Your task to perform on an android device: Play the last video I watched on Youtube Image 0: 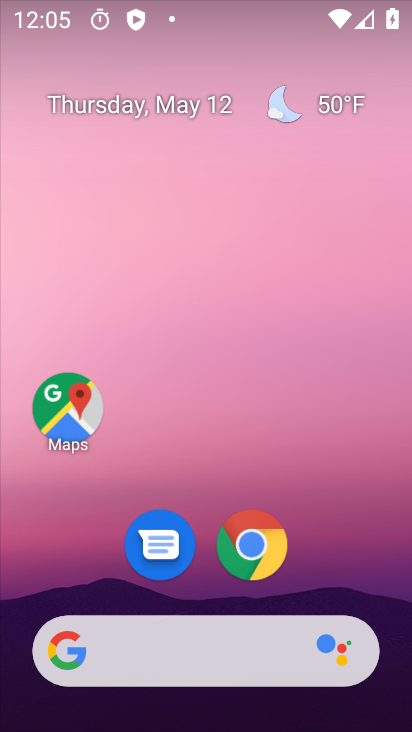
Step 0: drag from (224, 647) to (241, 132)
Your task to perform on an android device: Play the last video I watched on Youtube Image 1: 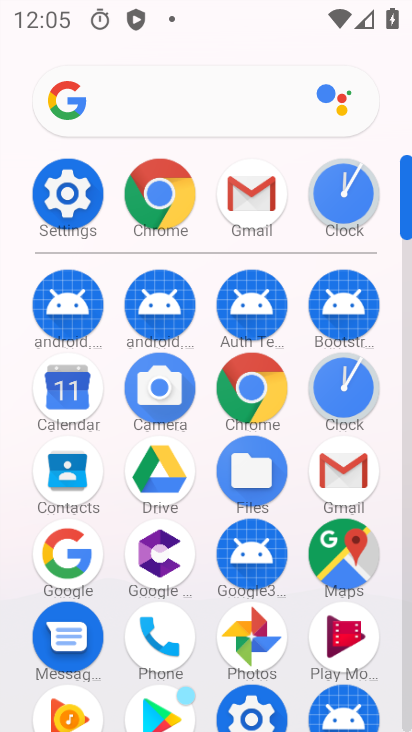
Step 1: drag from (221, 630) to (237, 139)
Your task to perform on an android device: Play the last video I watched on Youtube Image 2: 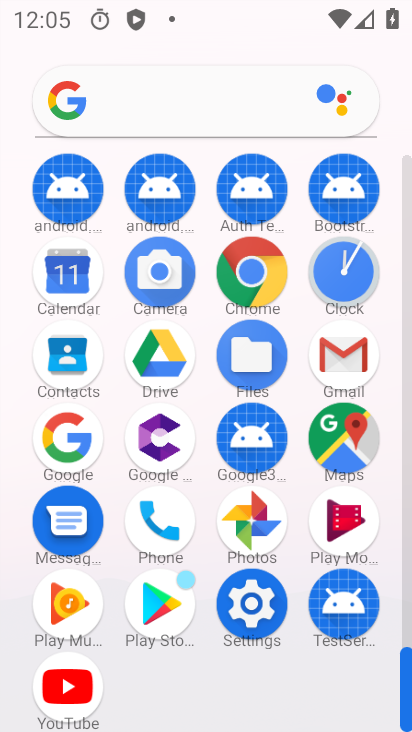
Step 2: click (75, 684)
Your task to perform on an android device: Play the last video I watched on Youtube Image 3: 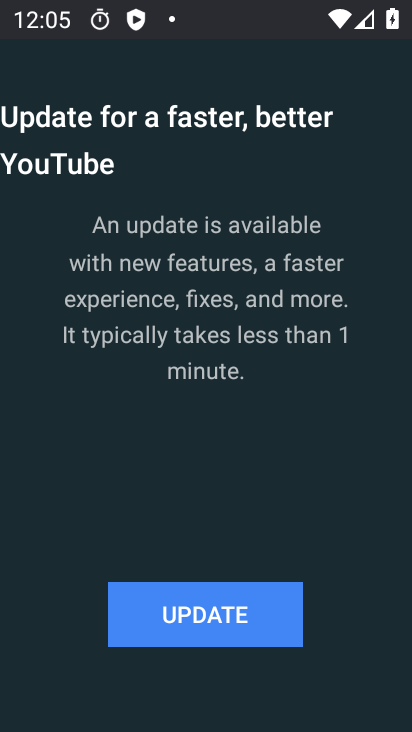
Step 3: click (91, 624)
Your task to perform on an android device: Play the last video I watched on Youtube Image 4: 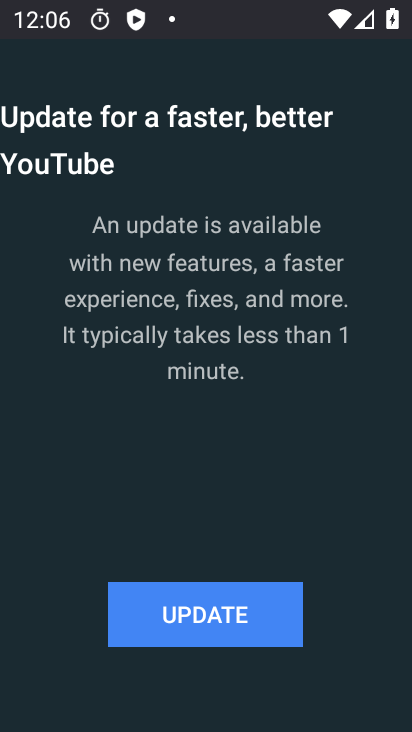
Step 4: click (189, 627)
Your task to perform on an android device: Play the last video I watched on Youtube Image 5: 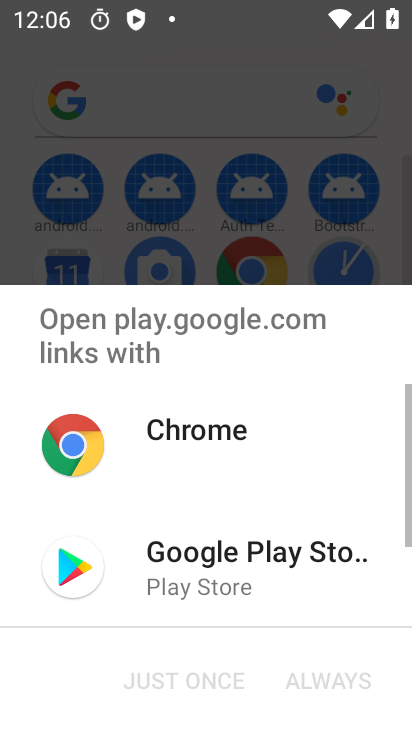
Step 5: click (203, 570)
Your task to perform on an android device: Play the last video I watched on Youtube Image 6: 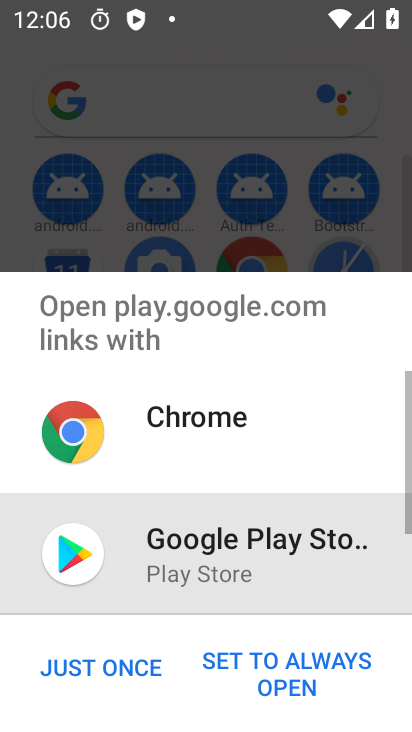
Step 6: click (102, 673)
Your task to perform on an android device: Play the last video I watched on Youtube Image 7: 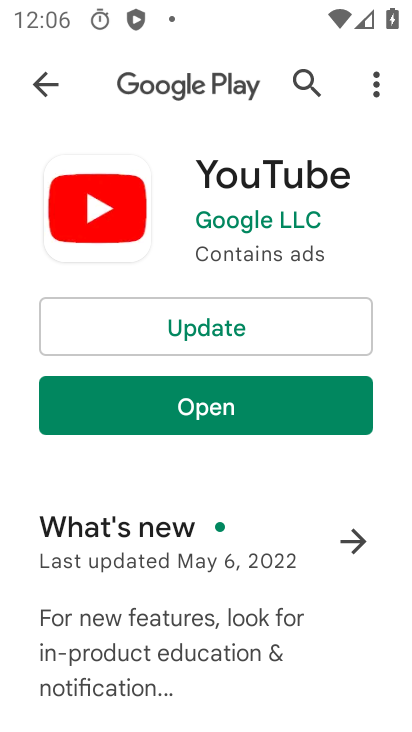
Step 7: click (185, 337)
Your task to perform on an android device: Play the last video I watched on Youtube Image 8: 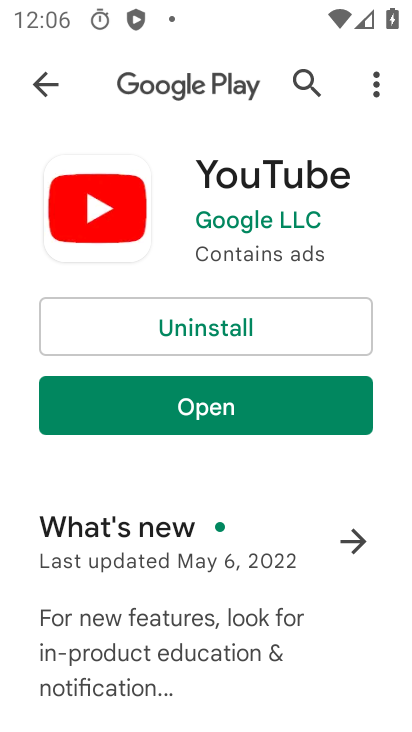
Step 8: click (190, 433)
Your task to perform on an android device: Play the last video I watched on Youtube Image 9: 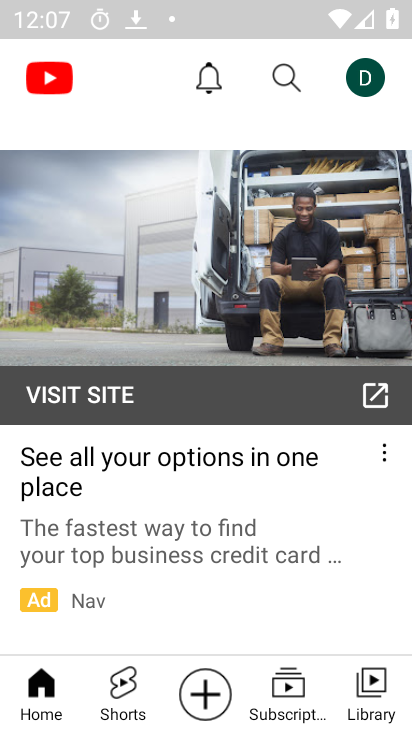
Step 9: click (369, 681)
Your task to perform on an android device: Play the last video I watched on Youtube Image 10: 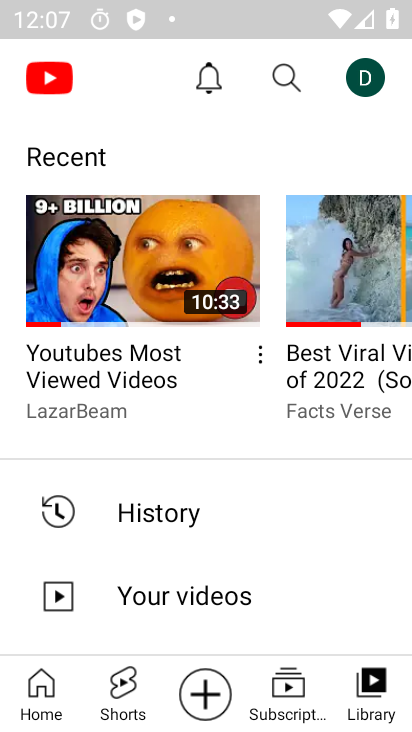
Step 10: click (133, 504)
Your task to perform on an android device: Play the last video I watched on Youtube Image 11: 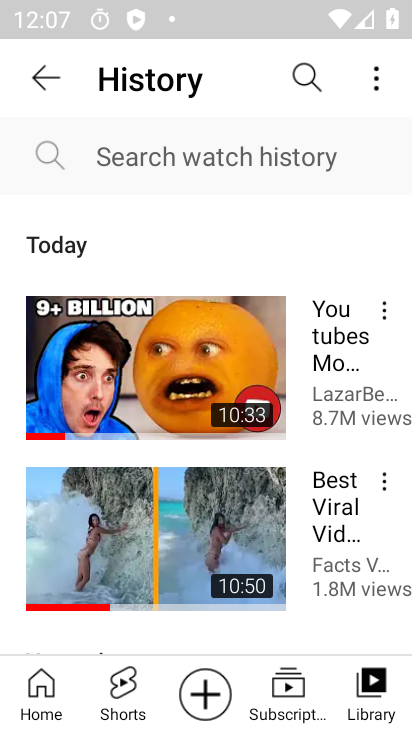
Step 11: task complete